Your task to perform on an android device: turn off wifi Image 0: 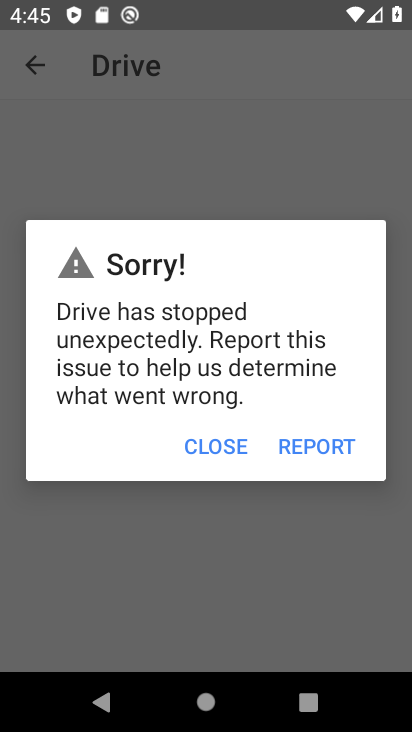
Step 0: press home button
Your task to perform on an android device: turn off wifi Image 1: 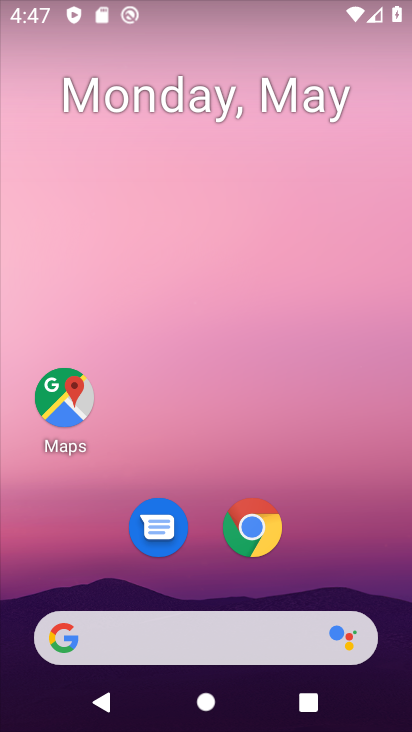
Step 1: drag from (375, 613) to (331, 102)
Your task to perform on an android device: turn off wifi Image 2: 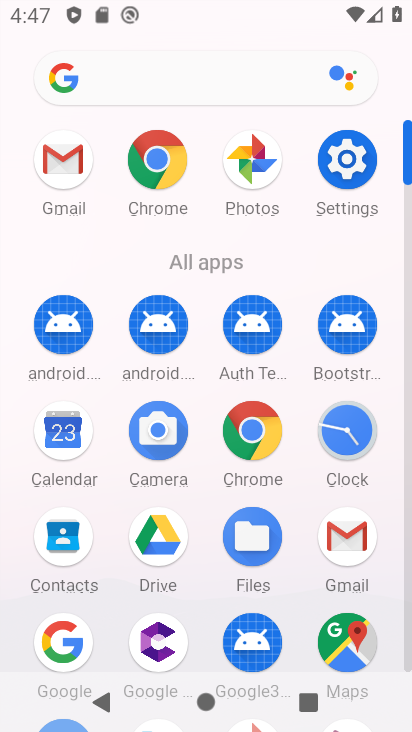
Step 2: click (355, 161)
Your task to perform on an android device: turn off wifi Image 3: 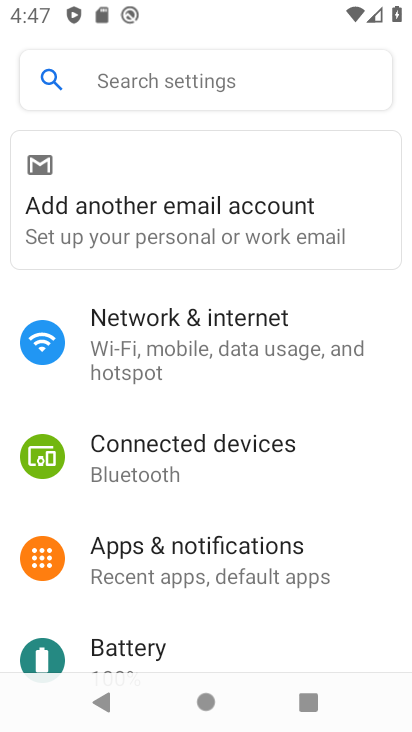
Step 3: click (123, 335)
Your task to perform on an android device: turn off wifi Image 4: 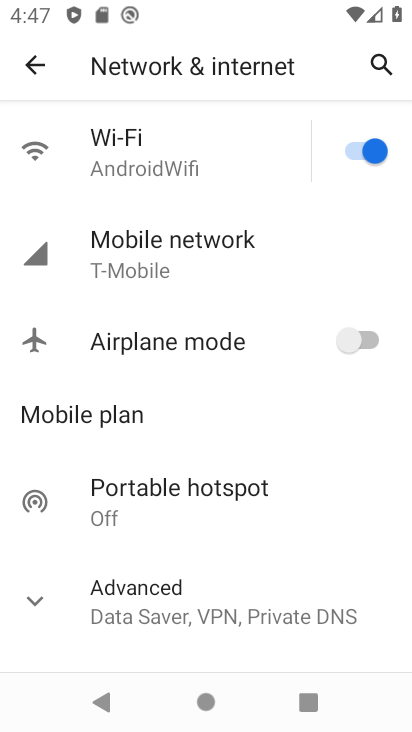
Step 4: click (351, 157)
Your task to perform on an android device: turn off wifi Image 5: 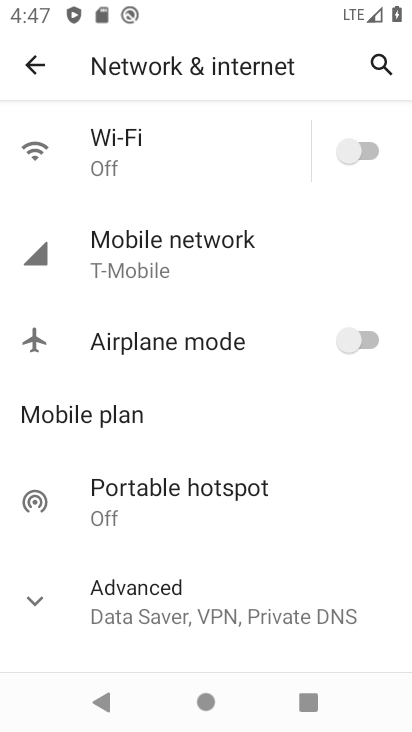
Step 5: task complete